Your task to perform on an android device: Open Yahoo.com Image 0: 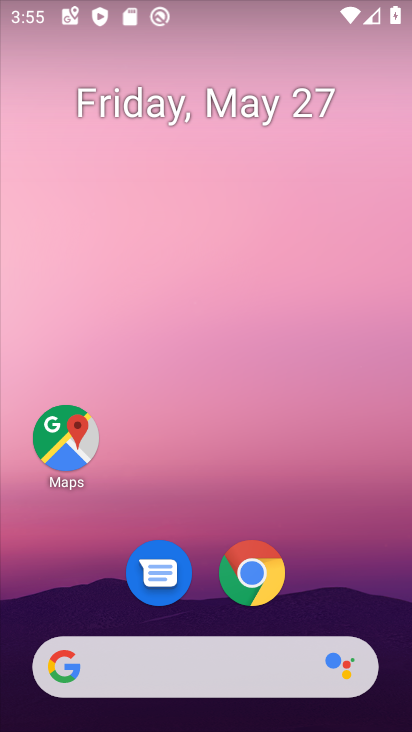
Step 0: click (200, 672)
Your task to perform on an android device: Open Yahoo.com Image 1: 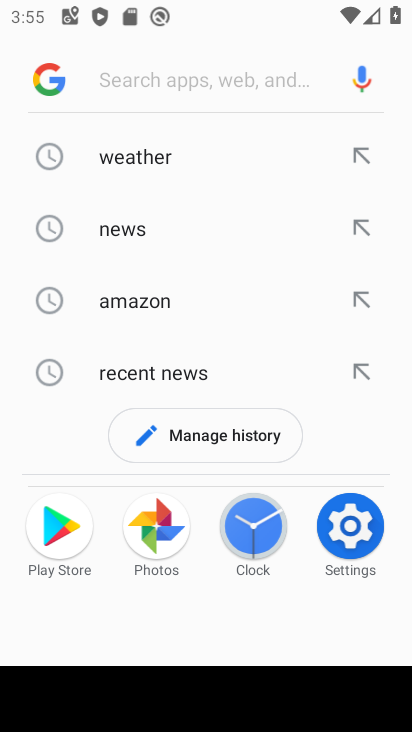
Step 1: click (200, 669)
Your task to perform on an android device: Open Yahoo.com Image 2: 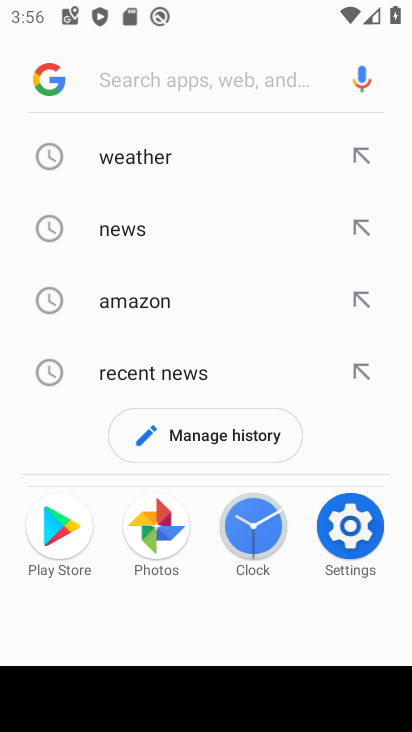
Step 2: type "yahoo.com"
Your task to perform on an android device: Open Yahoo.com Image 3: 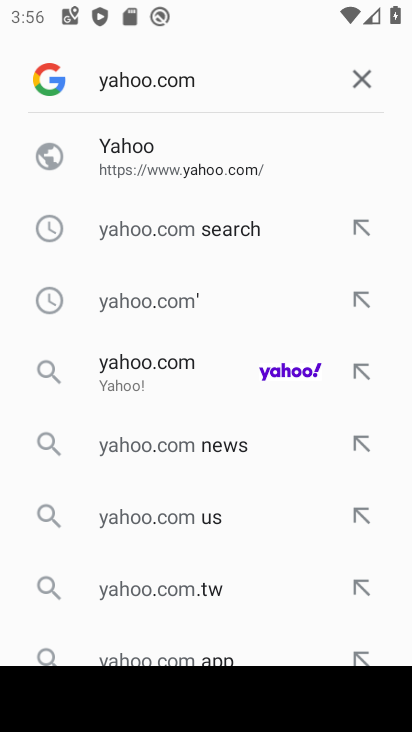
Step 3: click (145, 362)
Your task to perform on an android device: Open Yahoo.com Image 4: 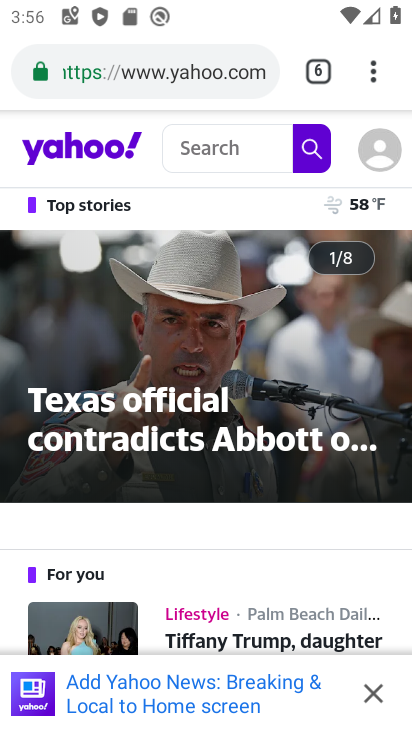
Step 4: task complete